Your task to perform on an android device: open app "Pluto TV - Live TV and Movies" (install if not already installed) Image 0: 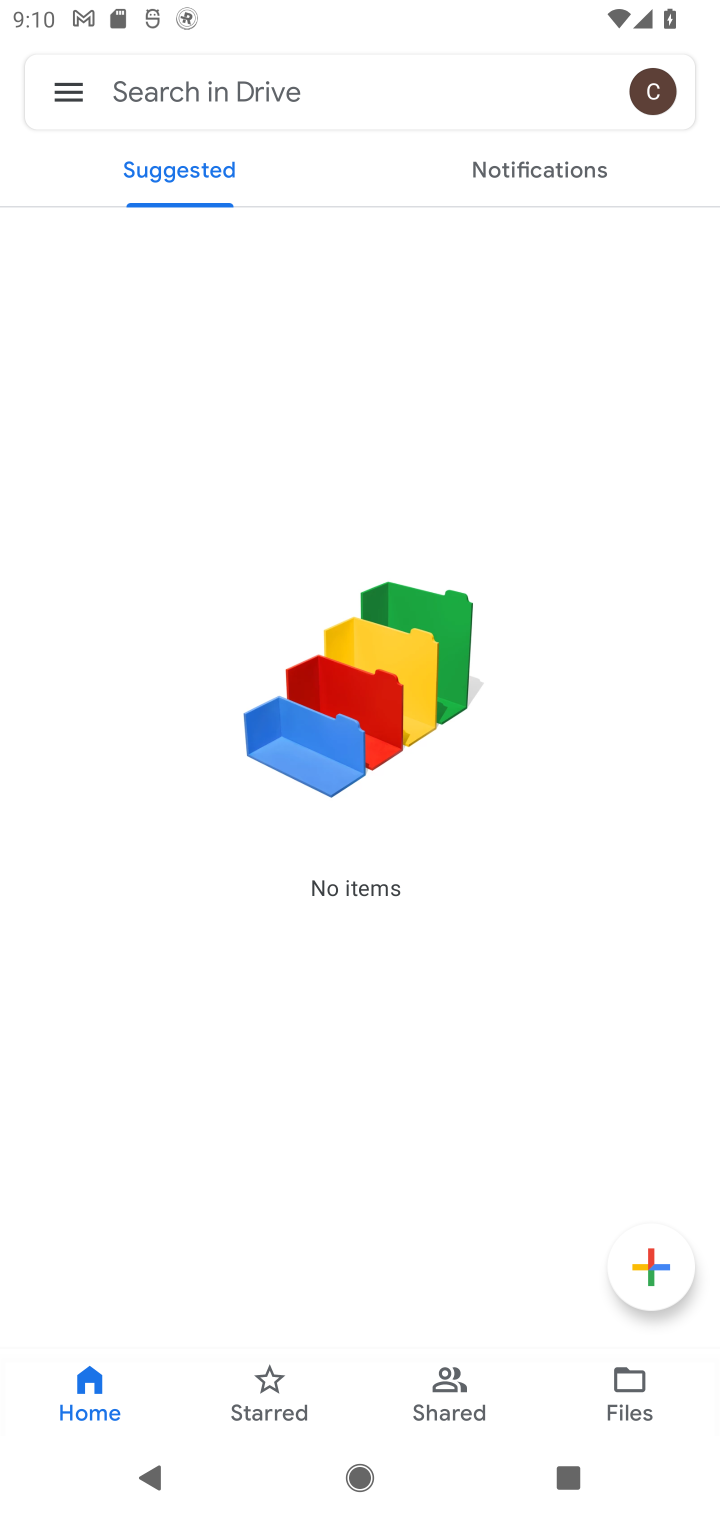
Step 0: press home button
Your task to perform on an android device: open app "Pluto TV - Live TV and Movies" (install if not already installed) Image 1: 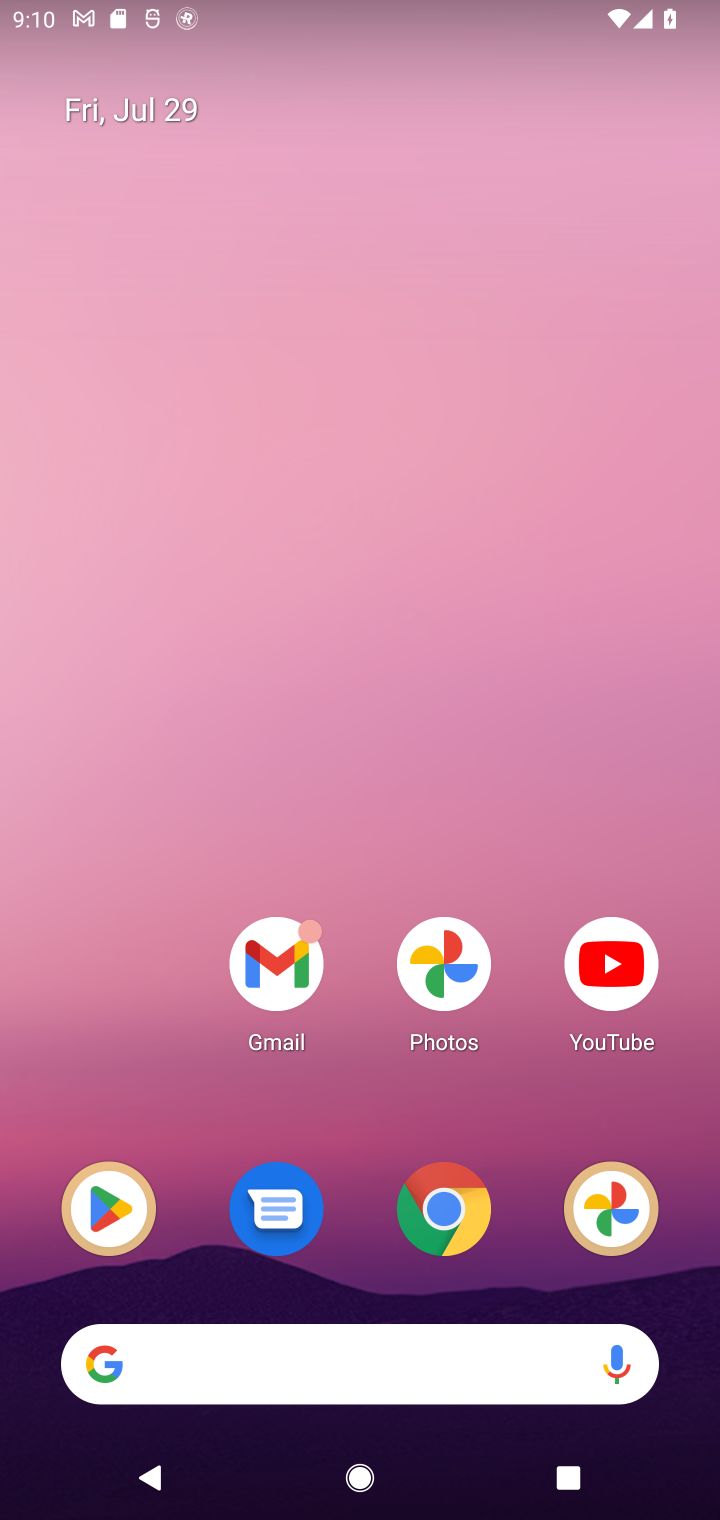
Step 1: drag from (312, 1353) to (268, 456)
Your task to perform on an android device: open app "Pluto TV - Live TV and Movies" (install if not already installed) Image 2: 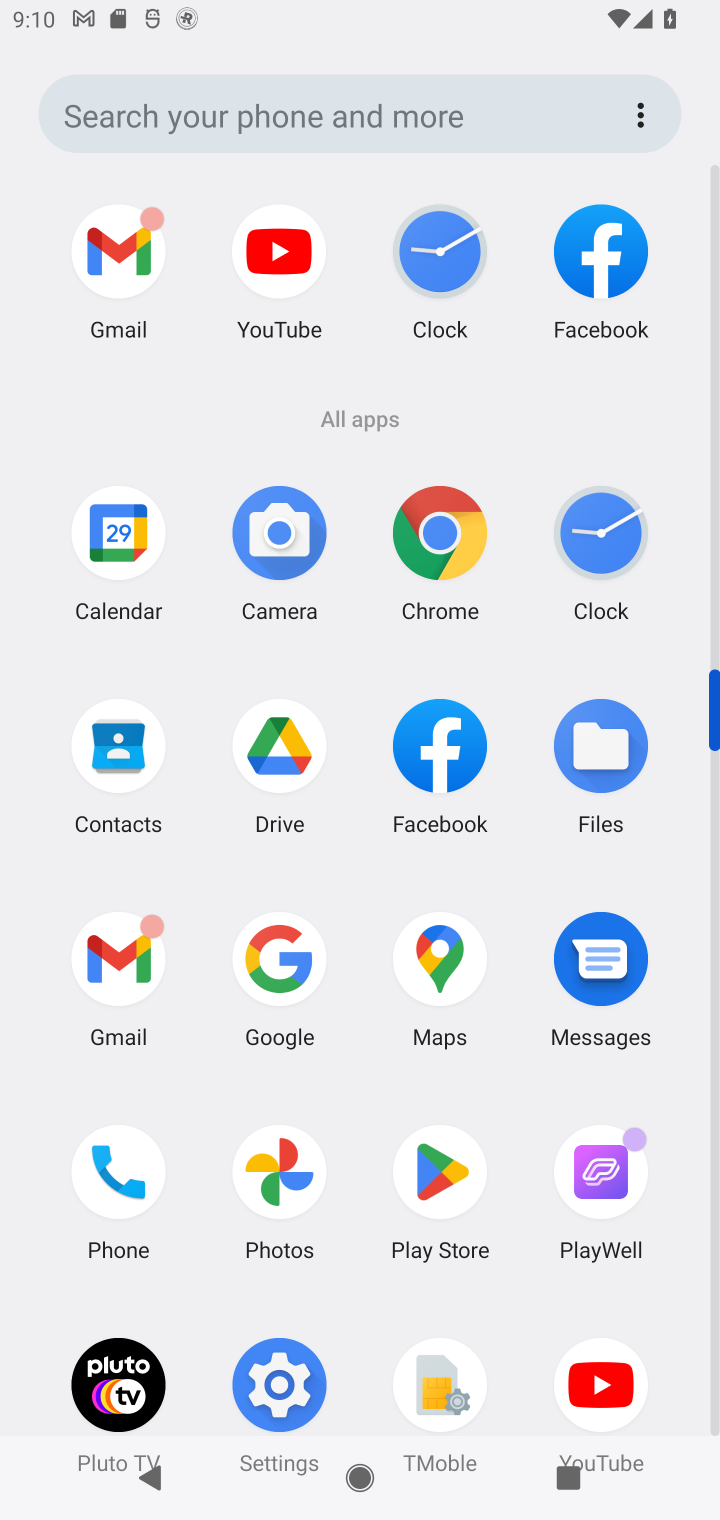
Step 2: click (128, 1385)
Your task to perform on an android device: open app "Pluto TV - Live TV and Movies" (install if not already installed) Image 3: 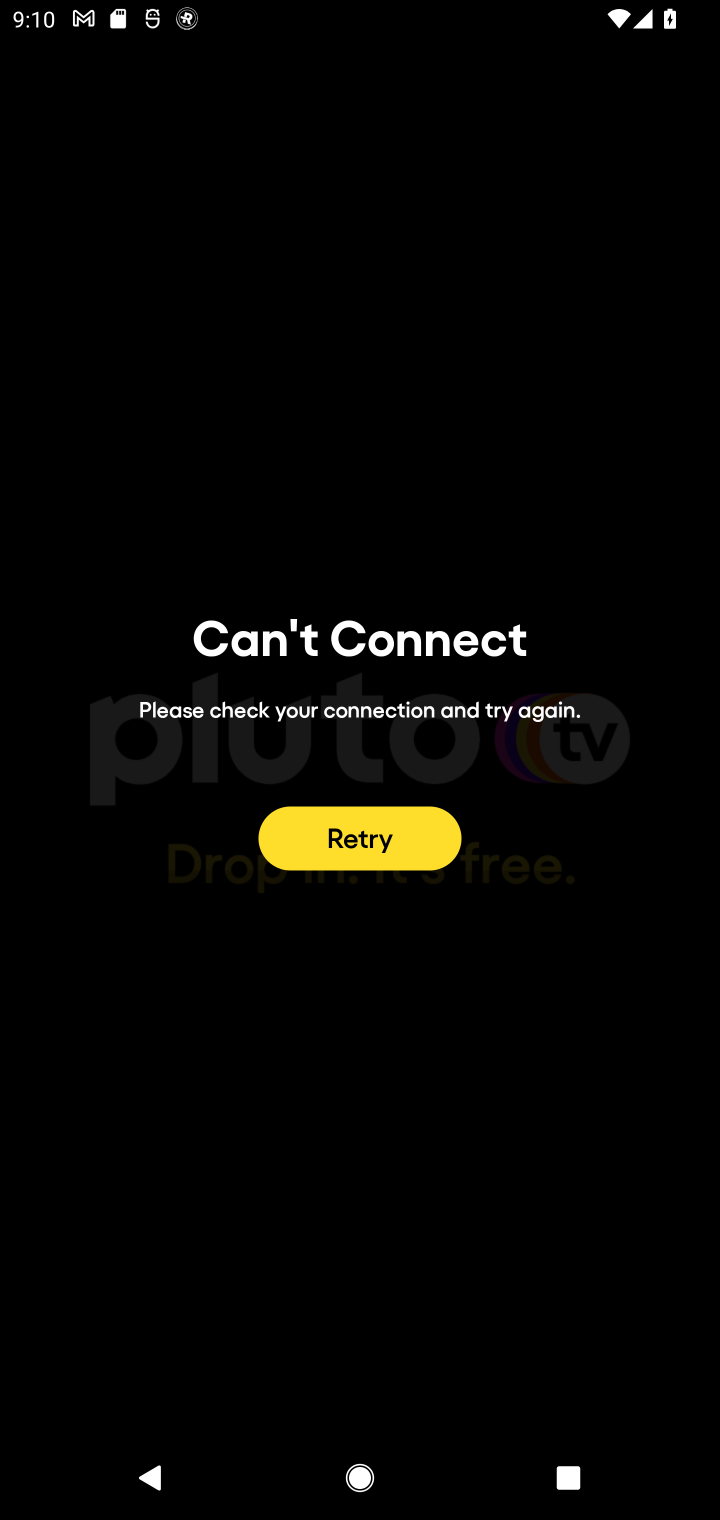
Step 3: task complete